Your task to perform on an android device: delete the emails in spam in the gmail app Image 0: 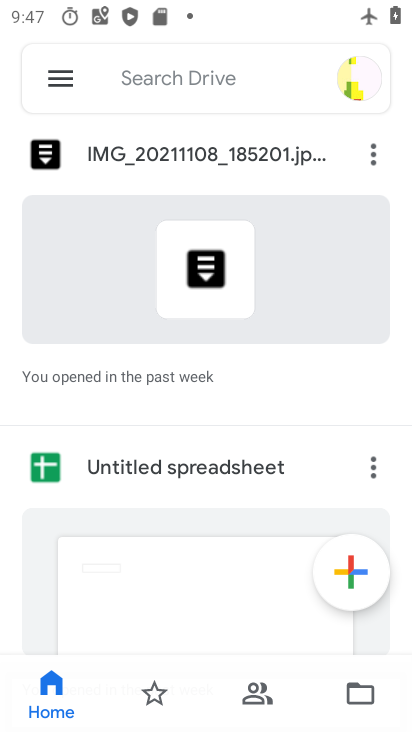
Step 0: press home button
Your task to perform on an android device: delete the emails in spam in the gmail app Image 1: 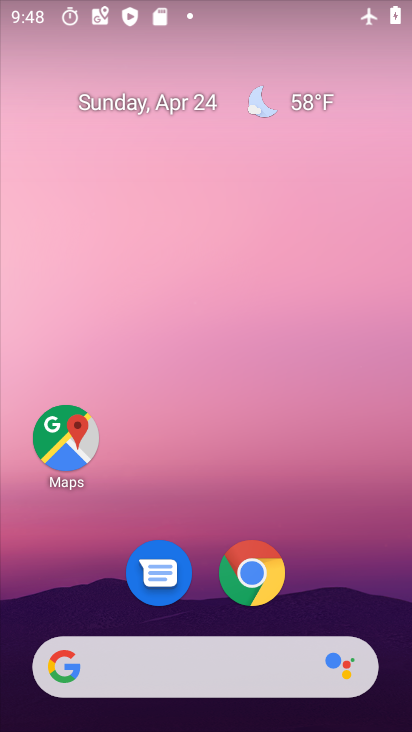
Step 1: drag from (345, 599) to (326, 81)
Your task to perform on an android device: delete the emails in spam in the gmail app Image 2: 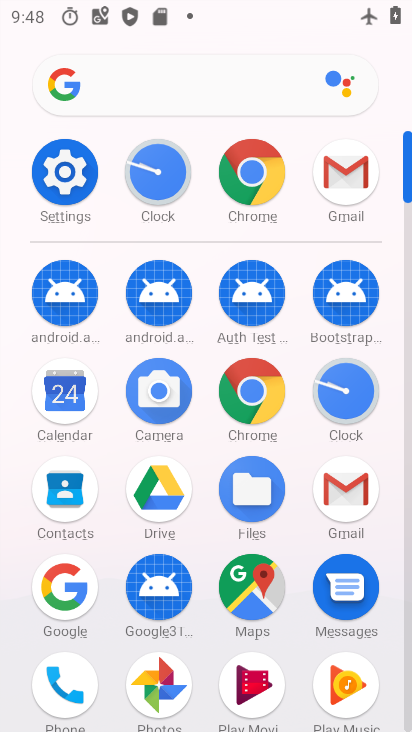
Step 2: click (341, 501)
Your task to perform on an android device: delete the emails in spam in the gmail app Image 3: 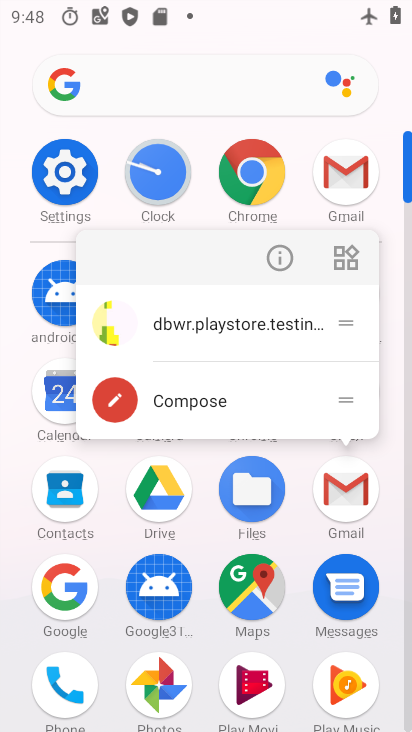
Step 3: click (344, 517)
Your task to perform on an android device: delete the emails in spam in the gmail app Image 4: 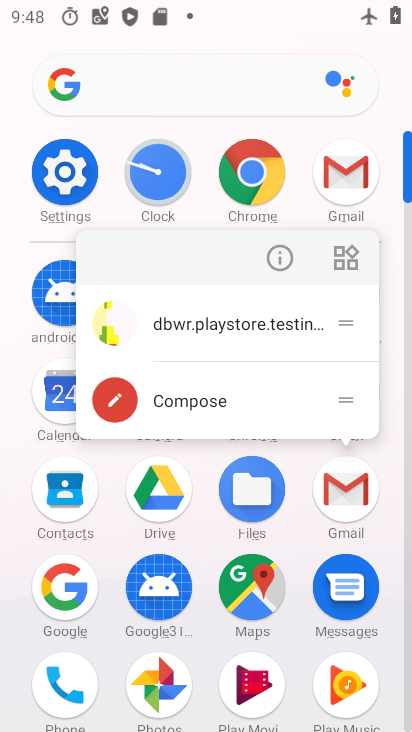
Step 4: click (346, 511)
Your task to perform on an android device: delete the emails in spam in the gmail app Image 5: 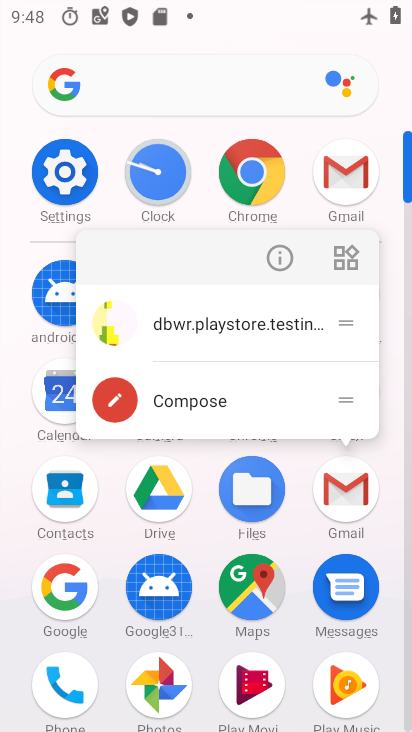
Step 5: click (357, 488)
Your task to perform on an android device: delete the emails in spam in the gmail app Image 6: 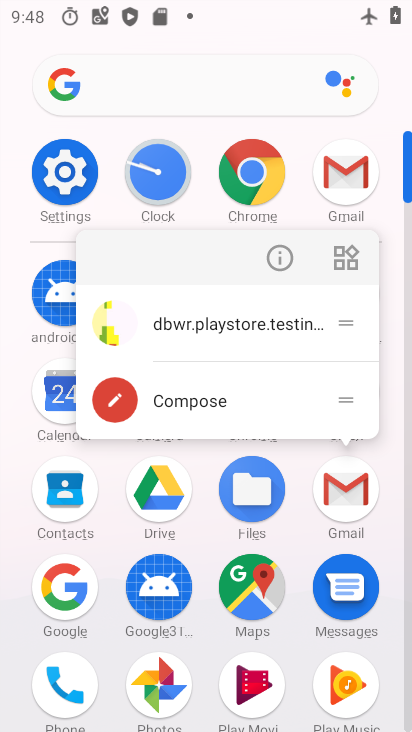
Step 6: click (288, 551)
Your task to perform on an android device: delete the emails in spam in the gmail app Image 7: 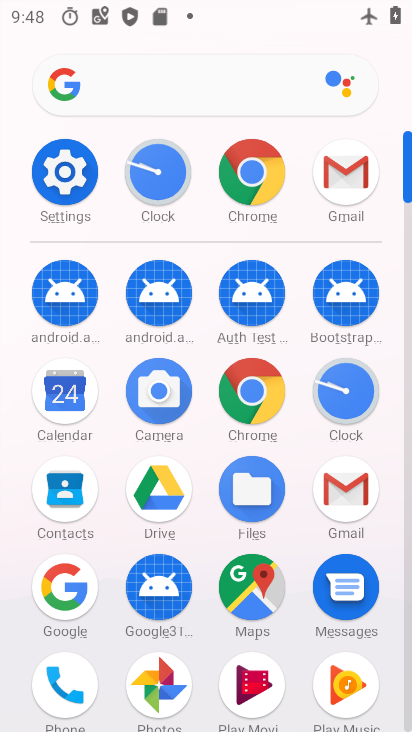
Step 7: click (352, 481)
Your task to perform on an android device: delete the emails in spam in the gmail app Image 8: 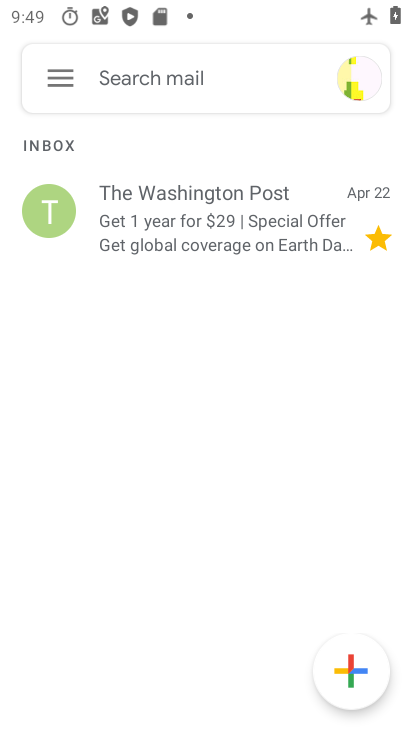
Step 8: click (50, 76)
Your task to perform on an android device: delete the emails in spam in the gmail app Image 9: 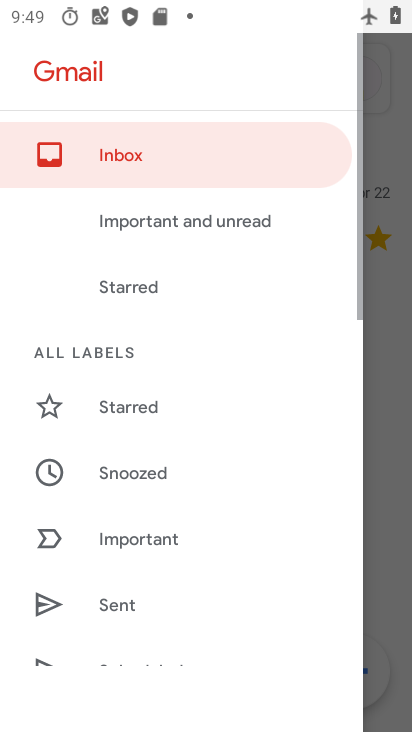
Step 9: drag from (155, 485) to (271, 148)
Your task to perform on an android device: delete the emails in spam in the gmail app Image 10: 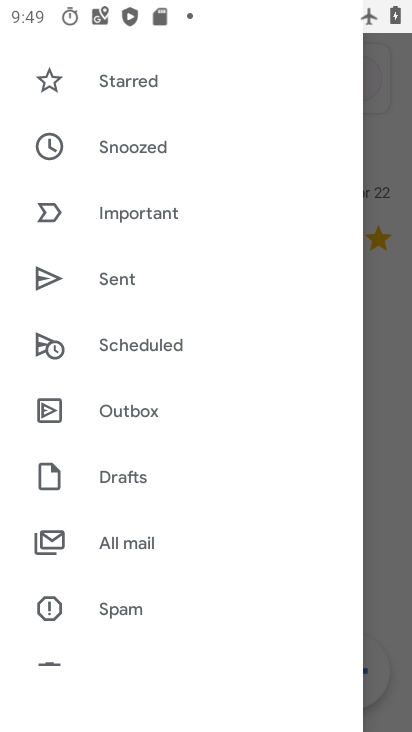
Step 10: click (130, 598)
Your task to perform on an android device: delete the emails in spam in the gmail app Image 11: 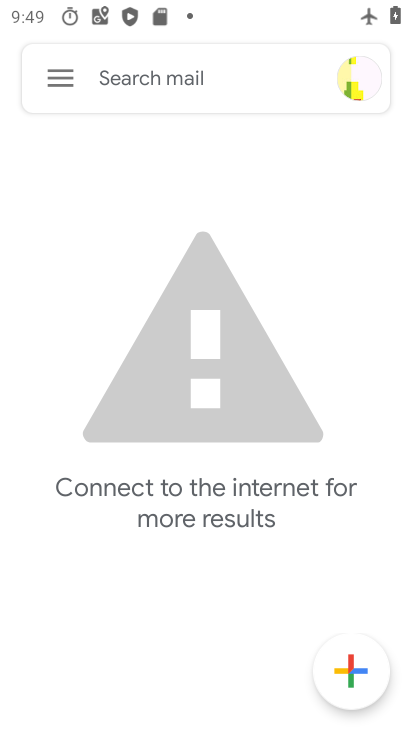
Step 11: task complete